Your task to perform on an android device: turn off improve location accuracy Image 0: 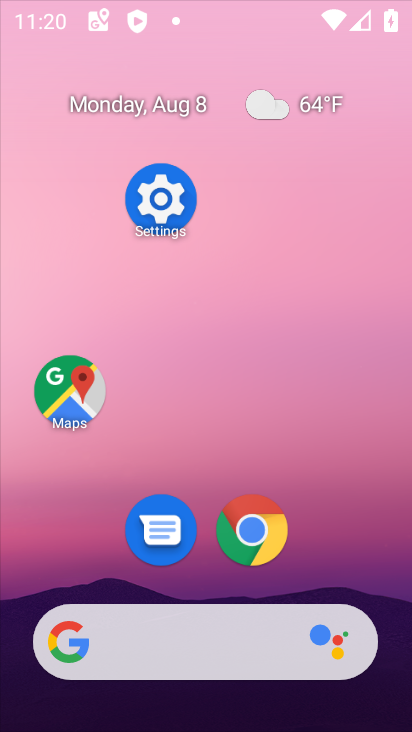
Step 0: drag from (257, 287) to (245, 341)
Your task to perform on an android device: turn off improve location accuracy Image 1: 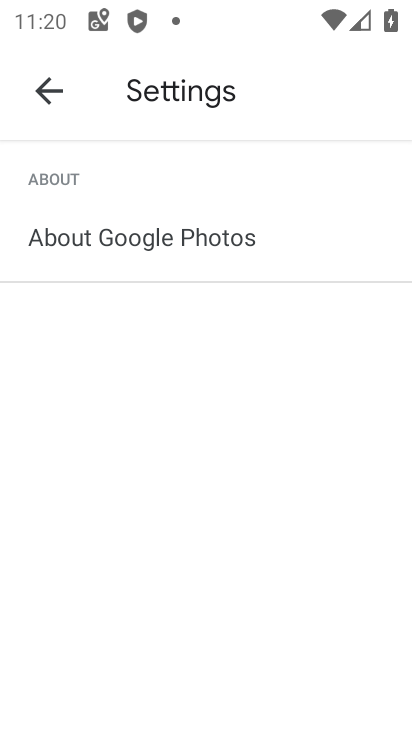
Step 1: click (54, 91)
Your task to perform on an android device: turn off improve location accuracy Image 2: 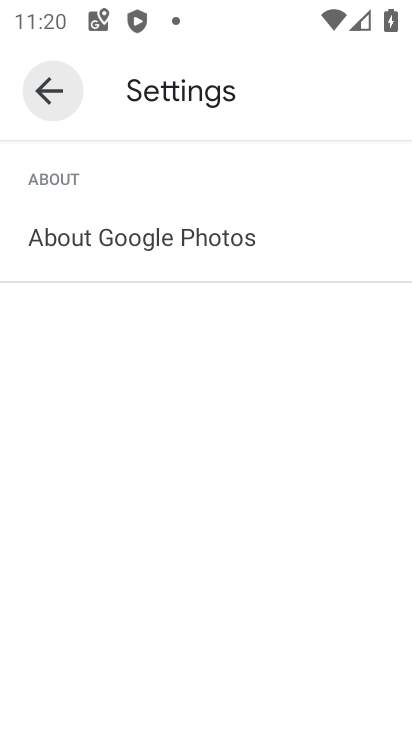
Step 2: click (53, 91)
Your task to perform on an android device: turn off improve location accuracy Image 3: 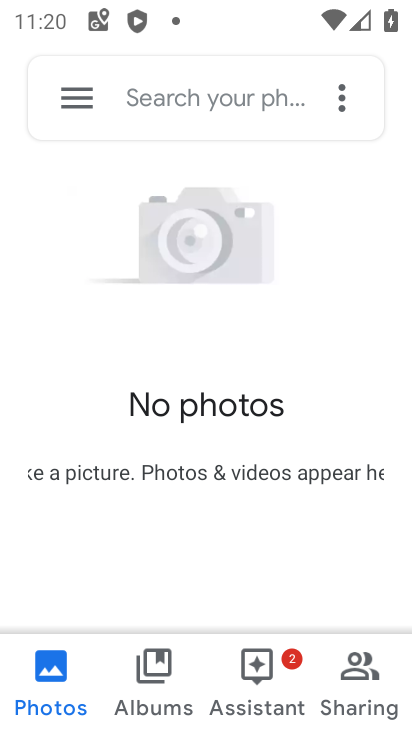
Step 3: press back button
Your task to perform on an android device: turn off improve location accuracy Image 4: 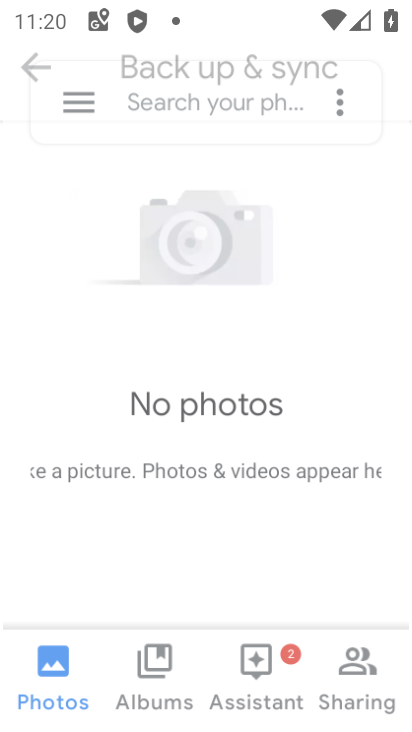
Step 4: press back button
Your task to perform on an android device: turn off improve location accuracy Image 5: 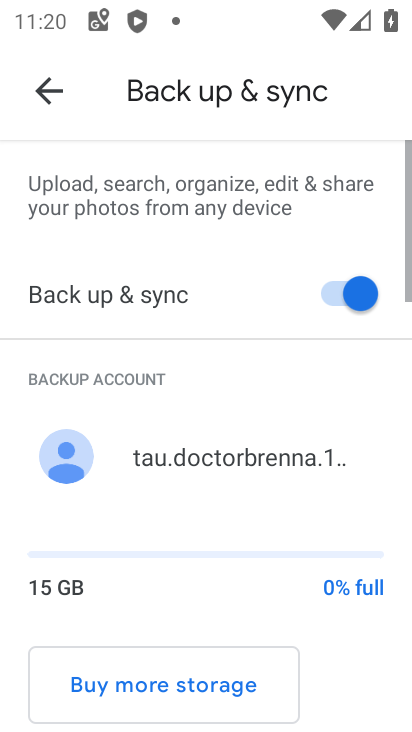
Step 5: press back button
Your task to perform on an android device: turn off improve location accuracy Image 6: 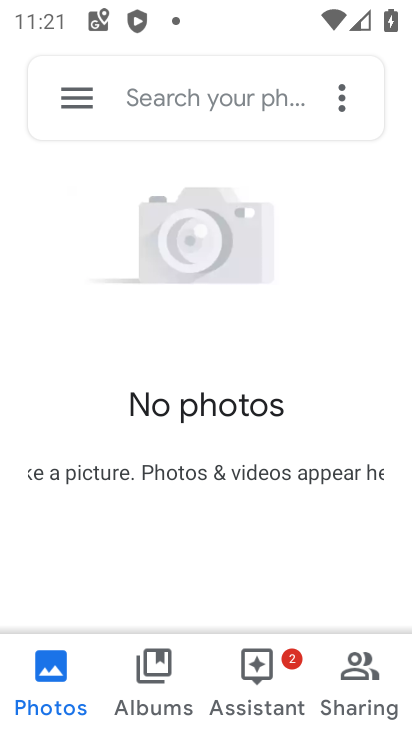
Step 6: press back button
Your task to perform on an android device: turn off improve location accuracy Image 7: 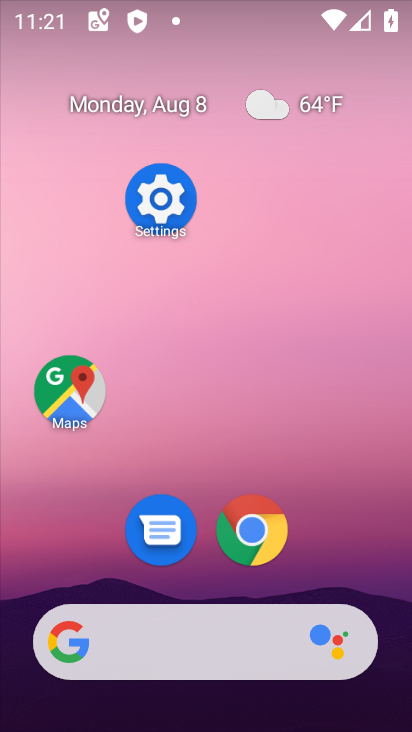
Step 7: drag from (238, 693) to (179, 176)
Your task to perform on an android device: turn off improve location accuracy Image 8: 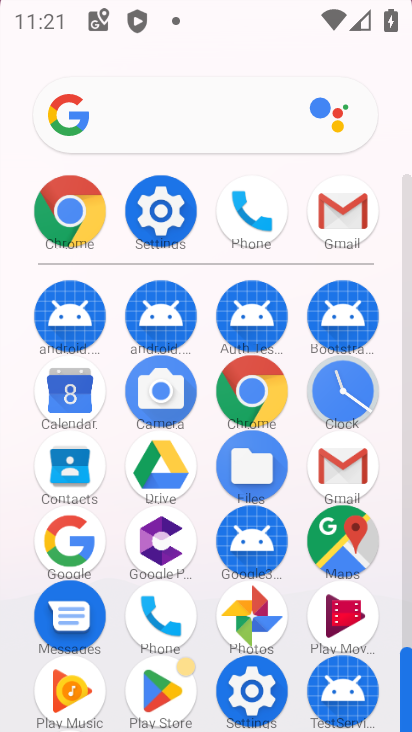
Step 8: drag from (146, 509) to (117, 251)
Your task to perform on an android device: turn off improve location accuracy Image 9: 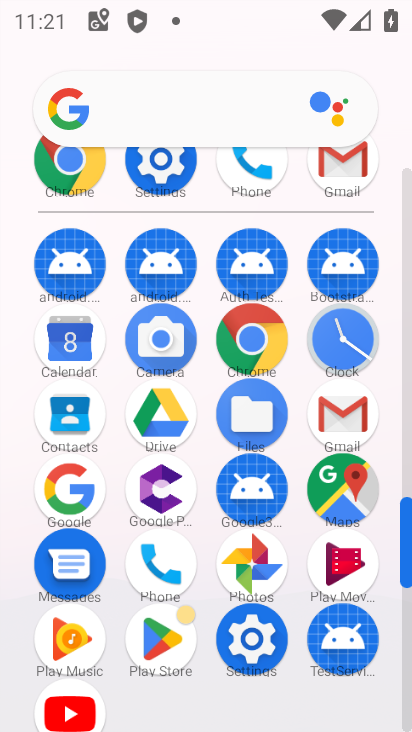
Step 9: click (156, 159)
Your task to perform on an android device: turn off improve location accuracy Image 10: 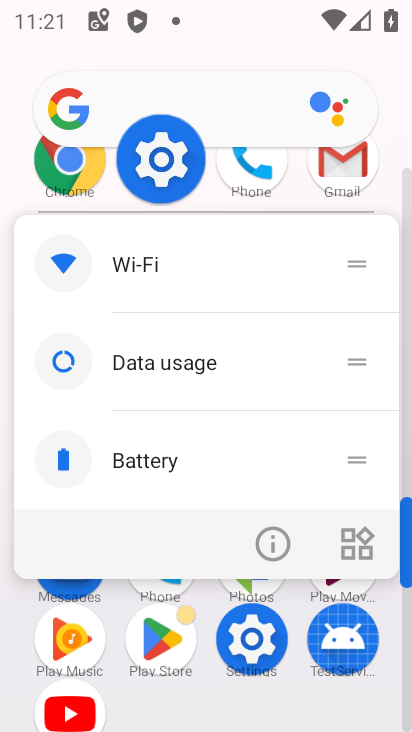
Step 10: click (173, 162)
Your task to perform on an android device: turn off improve location accuracy Image 11: 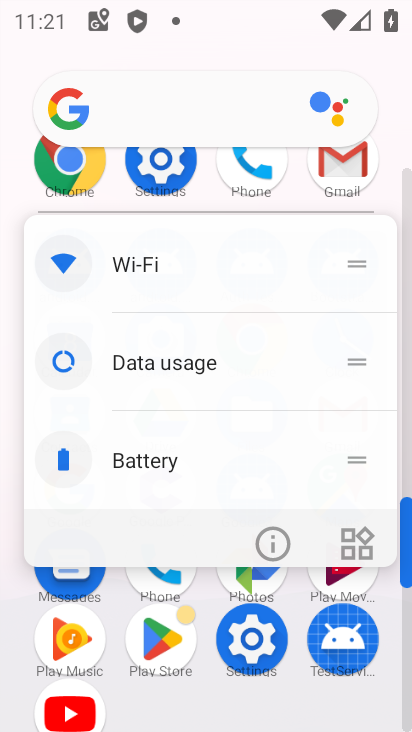
Step 11: click (176, 164)
Your task to perform on an android device: turn off improve location accuracy Image 12: 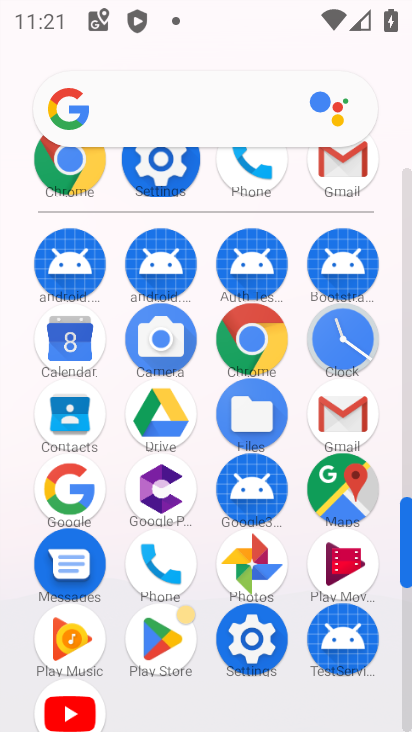
Step 12: click (180, 176)
Your task to perform on an android device: turn off improve location accuracy Image 13: 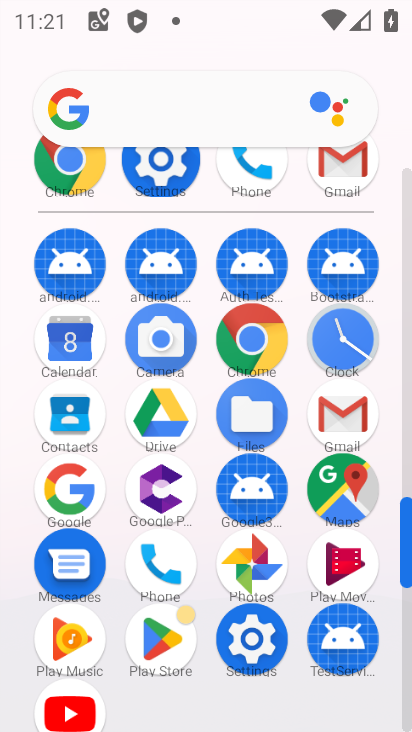
Step 13: click (179, 176)
Your task to perform on an android device: turn off improve location accuracy Image 14: 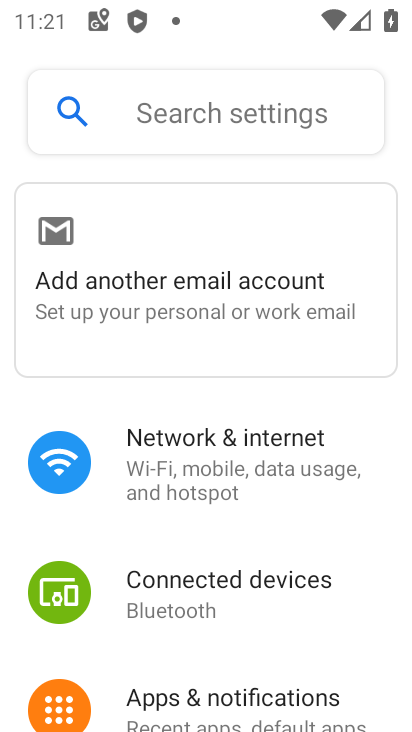
Step 14: drag from (209, 617) to (194, 269)
Your task to perform on an android device: turn off improve location accuracy Image 15: 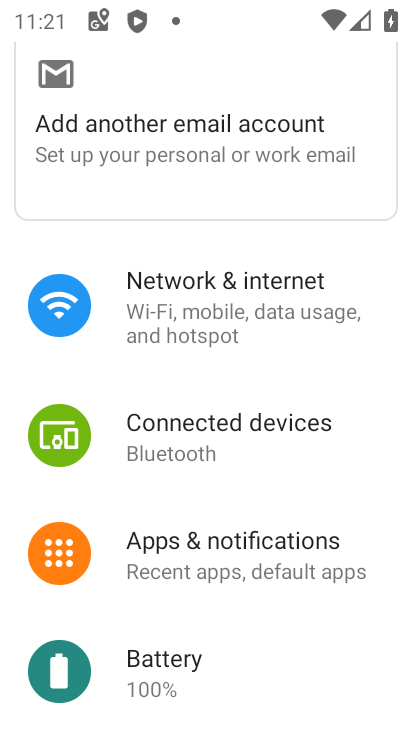
Step 15: drag from (283, 588) to (208, 317)
Your task to perform on an android device: turn off improve location accuracy Image 16: 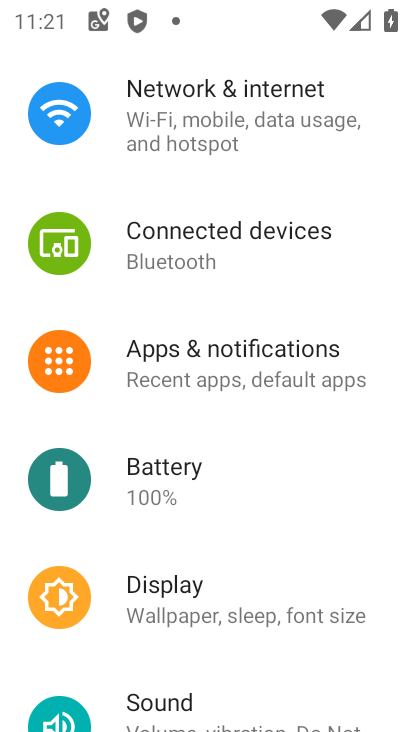
Step 16: drag from (230, 528) to (210, 277)
Your task to perform on an android device: turn off improve location accuracy Image 17: 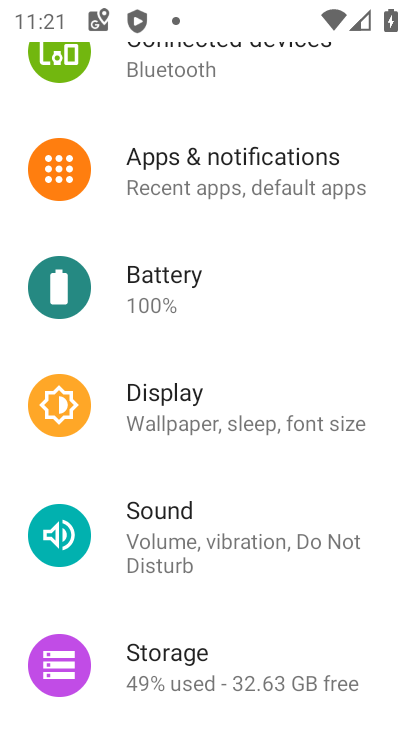
Step 17: drag from (245, 578) to (219, 263)
Your task to perform on an android device: turn off improve location accuracy Image 18: 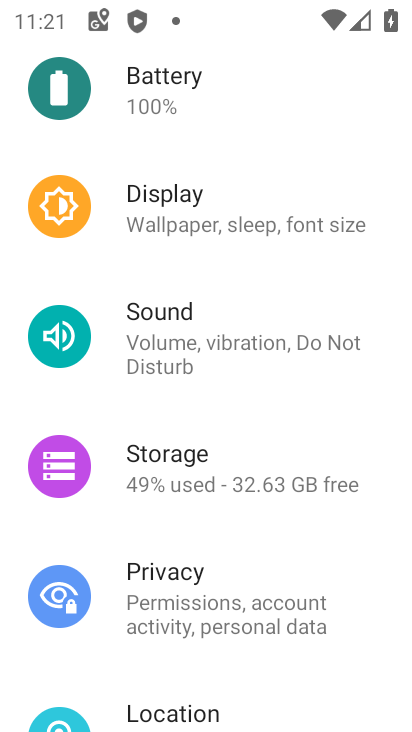
Step 18: drag from (181, 662) to (165, 321)
Your task to perform on an android device: turn off improve location accuracy Image 19: 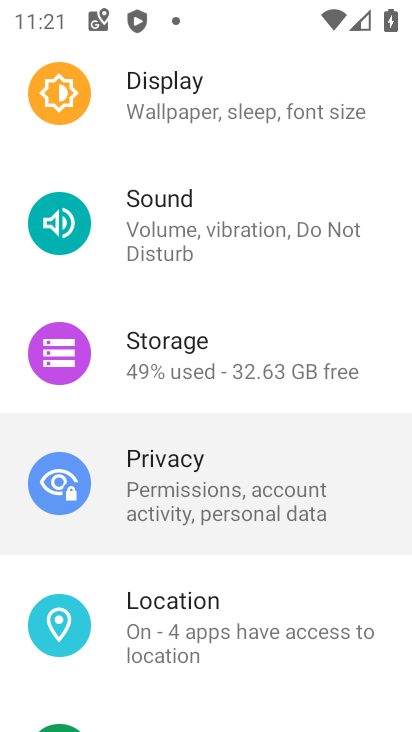
Step 19: drag from (184, 419) to (184, 271)
Your task to perform on an android device: turn off improve location accuracy Image 20: 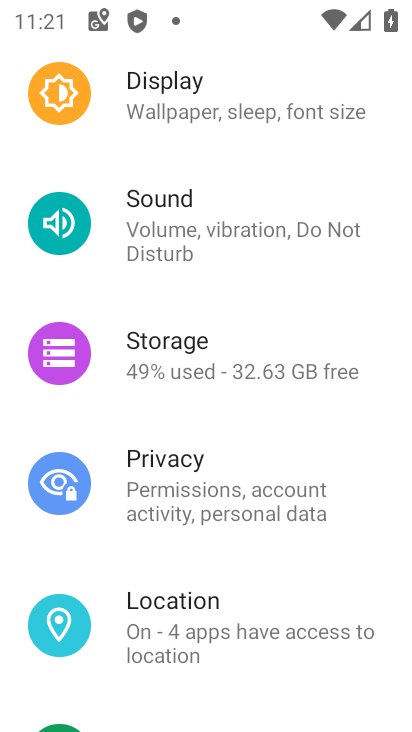
Step 20: drag from (226, 558) to (234, 284)
Your task to perform on an android device: turn off improve location accuracy Image 21: 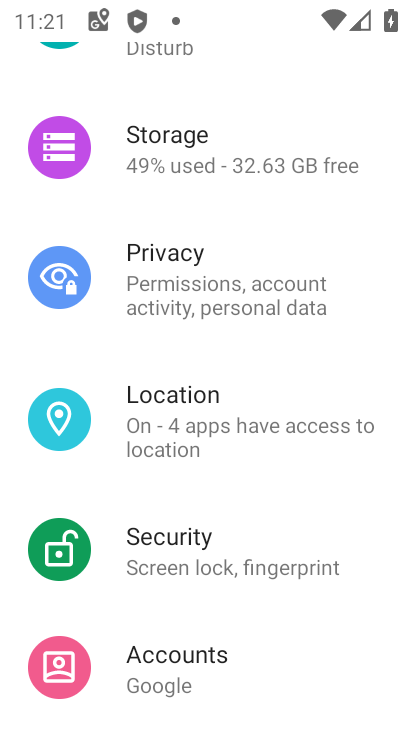
Step 21: click (200, 421)
Your task to perform on an android device: turn off improve location accuracy Image 22: 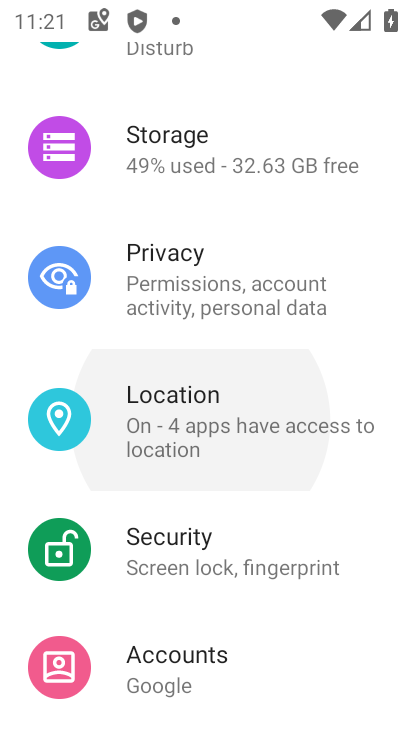
Step 22: click (197, 422)
Your task to perform on an android device: turn off improve location accuracy Image 23: 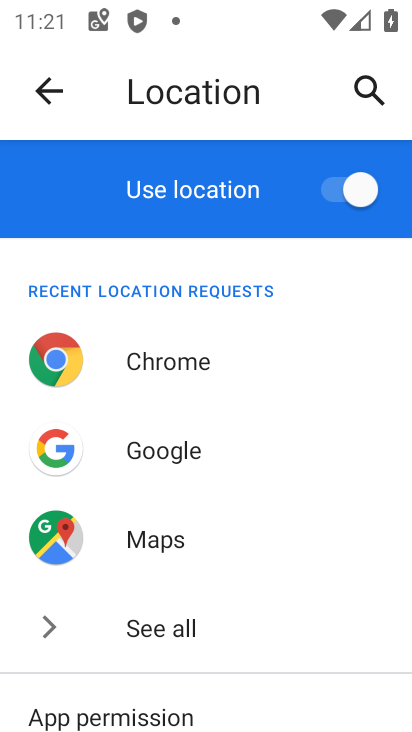
Step 23: drag from (248, 575) to (188, 150)
Your task to perform on an android device: turn off improve location accuracy Image 24: 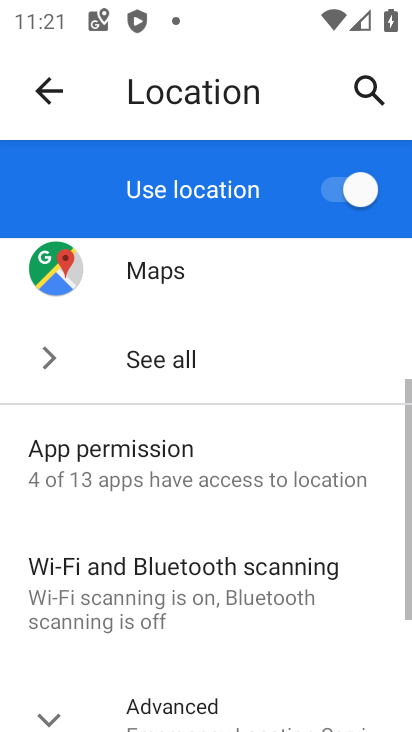
Step 24: drag from (207, 503) to (200, 157)
Your task to perform on an android device: turn off improve location accuracy Image 25: 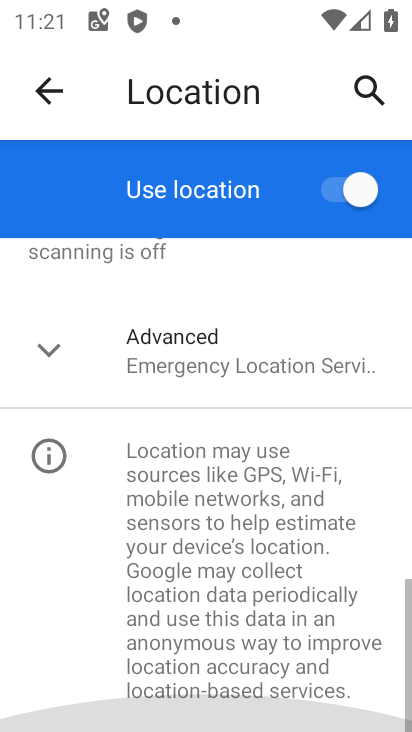
Step 25: drag from (173, 452) to (184, 234)
Your task to perform on an android device: turn off improve location accuracy Image 26: 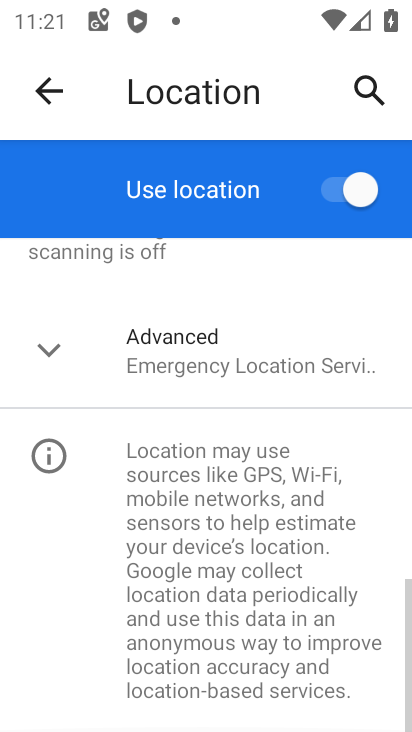
Step 26: drag from (212, 563) to (207, 321)
Your task to perform on an android device: turn off improve location accuracy Image 27: 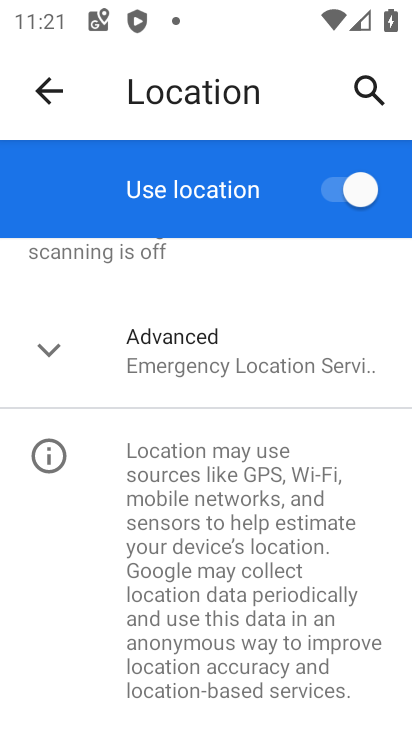
Step 27: click (188, 352)
Your task to perform on an android device: turn off improve location accuracy Image 28: 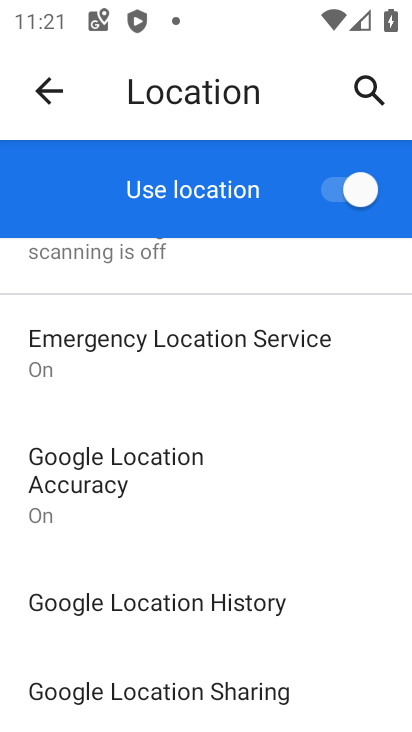
Step 28: click (44, 466)
Your task to perform on an android device: turn off improve location accuracy Image 29: 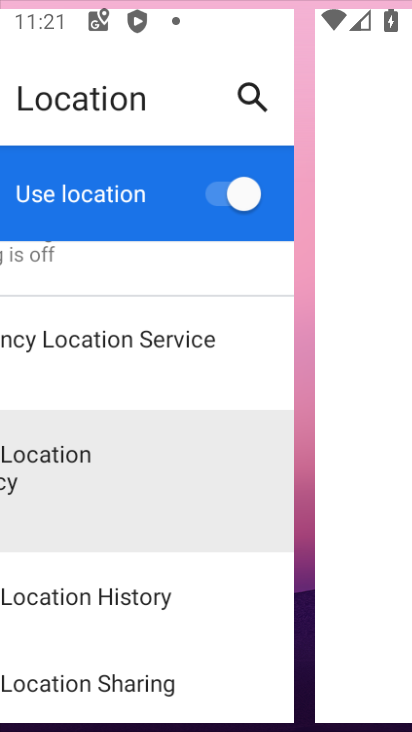
Step 29: click (43, 466)
Your task to perform on an android device: turn off improve location accuracy Image 30: 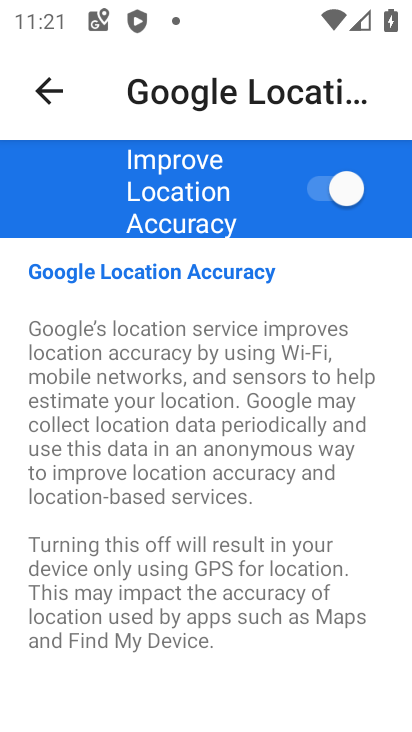
Step 30: click (342, 192)
Your task to perform on an android device: turn off improve location accuracy Image 31: 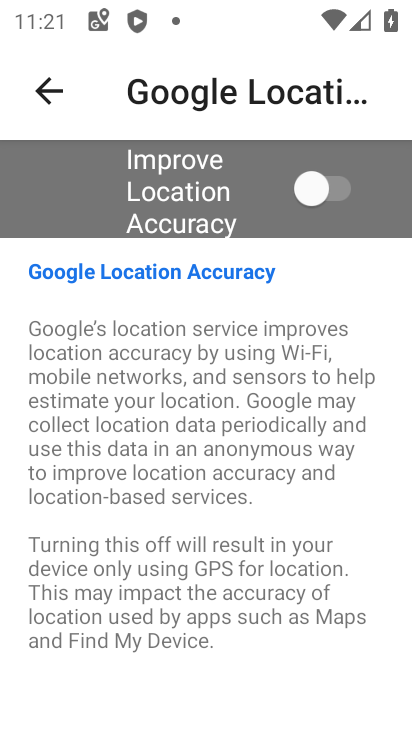
Step 31: task complete